Your task to perform on an android device: What is the news today? Image 0: 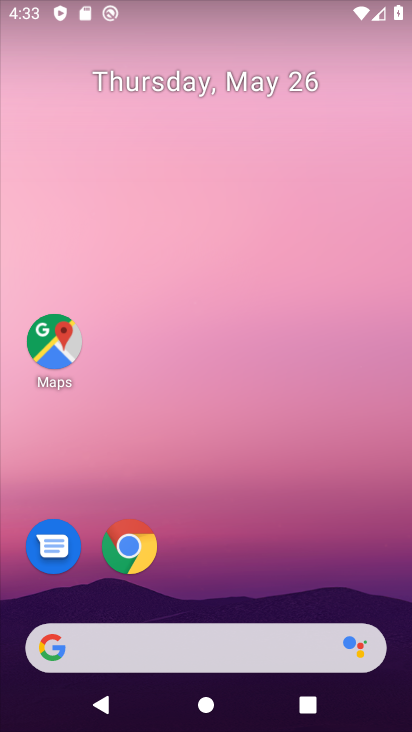
Step 0: click (143, 547)
Your task to perform on an android device: What is the news today? Image 1: 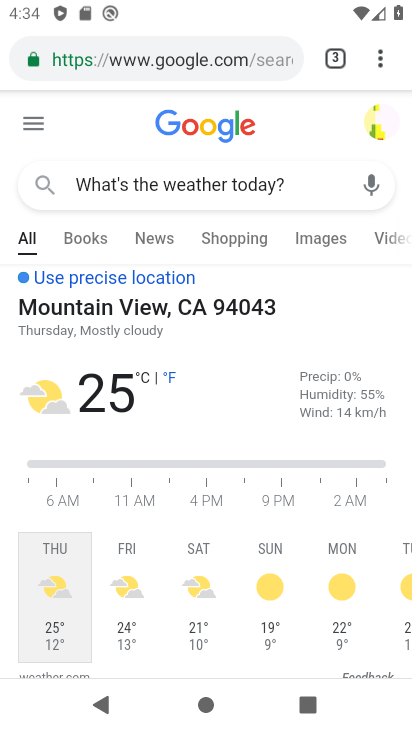
Step 1: click (302, 178)
Your task to perform on an android device: What is the news today? Image 2: 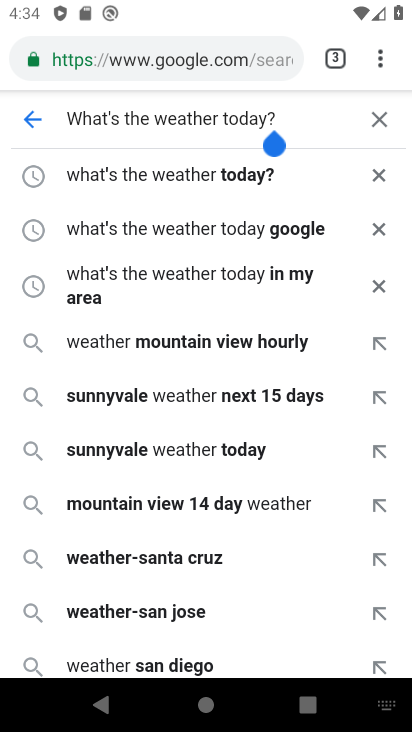
Step 2: click (382, 110)
Your task to perform on an android device: What is the news today? Image 3: 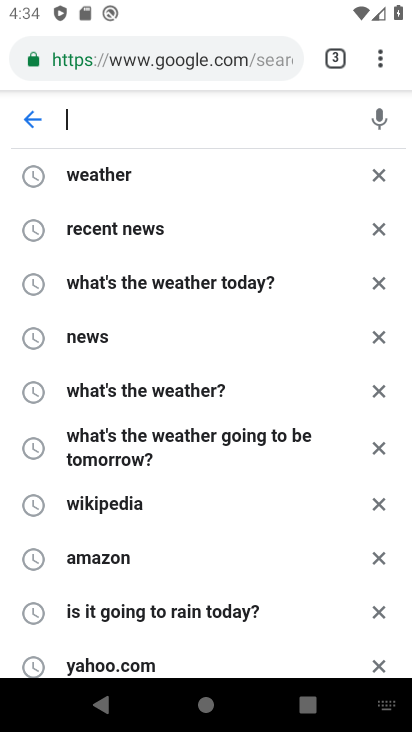
Step 3: click (217, 134)
Your task to perform on an android device: What is the news today? Image 4: 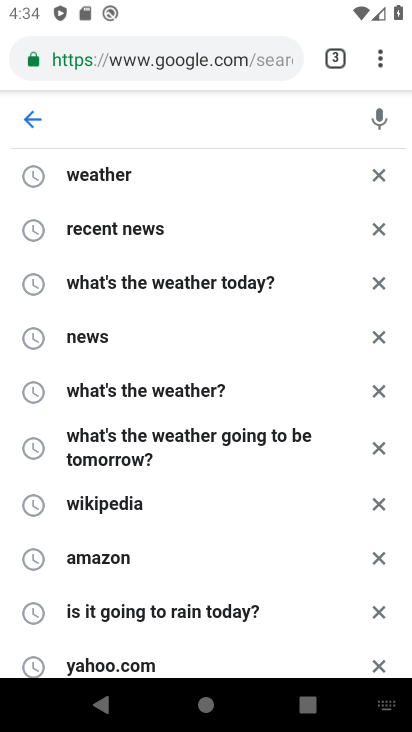
Step 4: type "What is the news today?"
Your task to perform on an android device: What is the news today? Image 5: 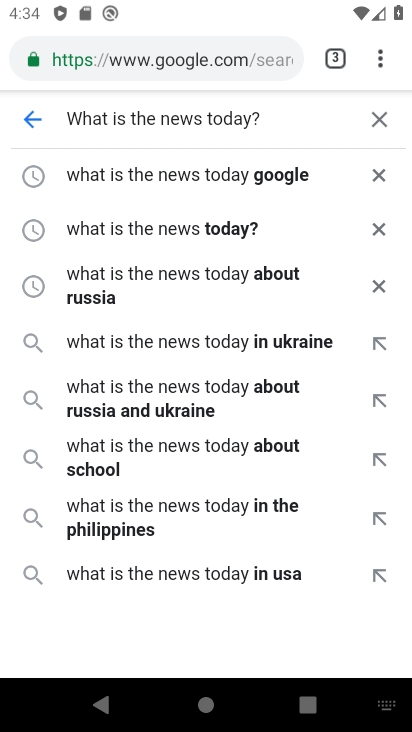
Step 5: click (244, 239)
Your task to perform on an android device: What is the news today? Image 6: 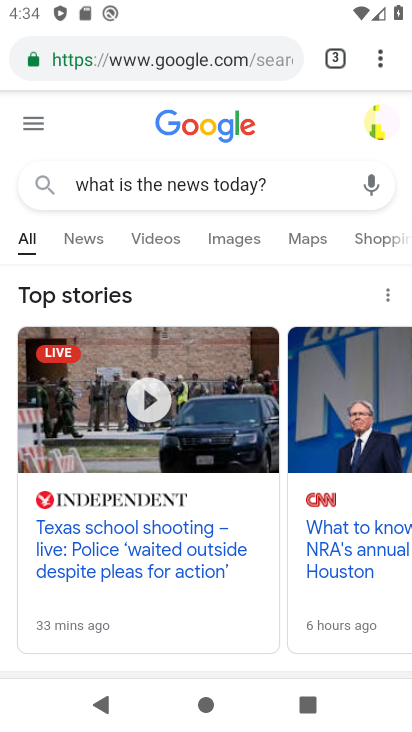
Step 6: task complete